Your task to perform on an android device: allow cookies in the chrome app Image 0: 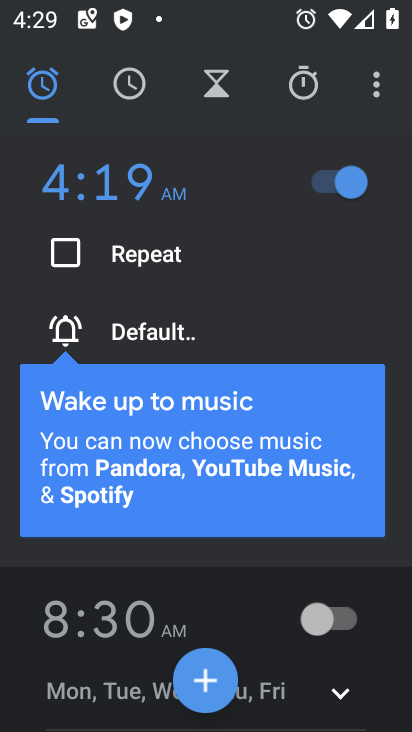
Step 0: press home button
Your task to perform on an android device: allow cookies in the chrome app Image 1: 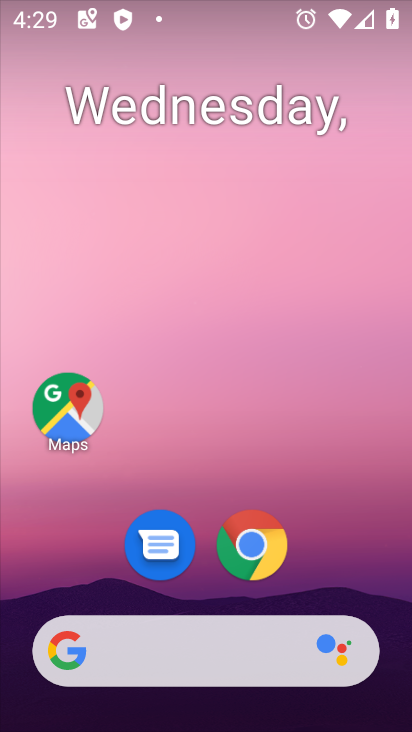
Step 1: drag from (362, 562) to (348, 118)
Your task to perform on an android device: allow cookies in the chrome app Image 2: 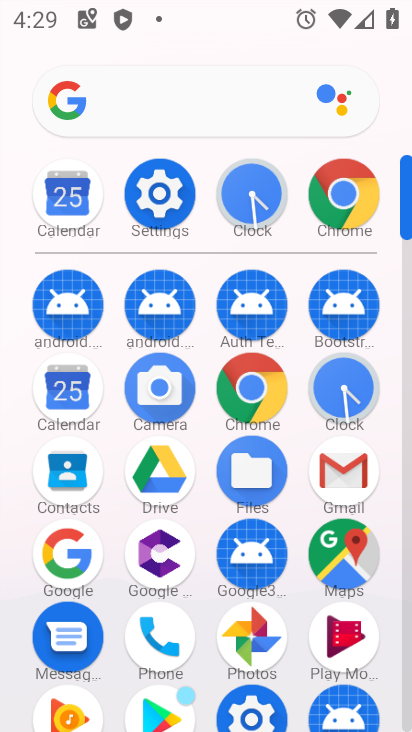
Step 2: click (267, 397)
Your task to perform on an android device: allow cookies in the chrome app Image 3: 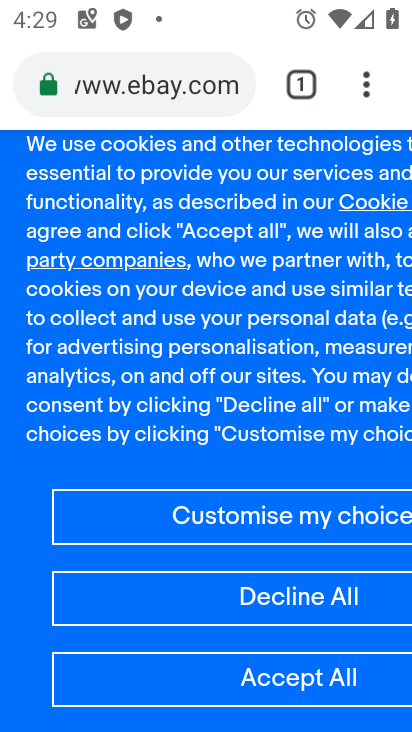
Step 3: click (363, 96)
Your task to perform on an android device: allow cookies in the chrome app Image 4: 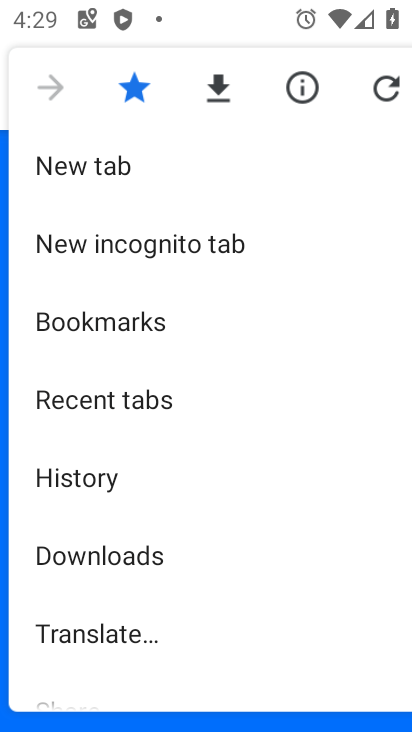
Step 4: drag from (302, 493) to (312, 375)
Your task to perform on an android device: allow cookies in the chrome app Image 5: 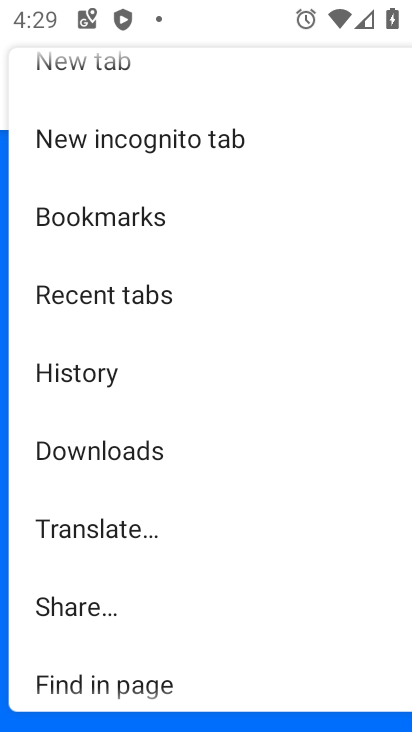
Step 5: drag from (288, 556) to (299, 412)
Your task to perform on an android device: allow cookies in the chrome app Image 6: 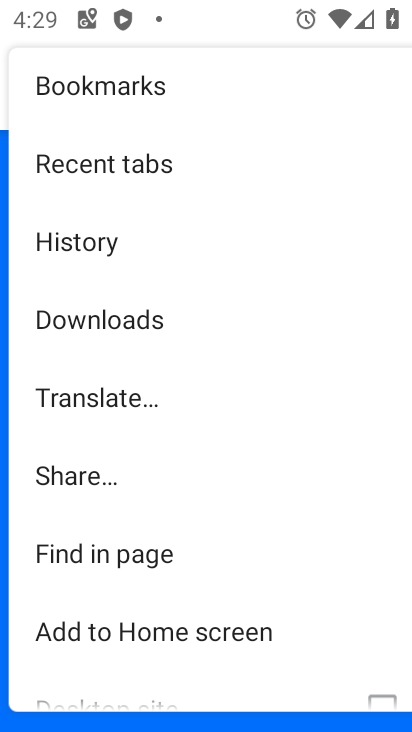
Step 6: drag from (268, 596) to (286, 447)
Your task to perform on an android device: allow cookies in the chrome app Image 7: 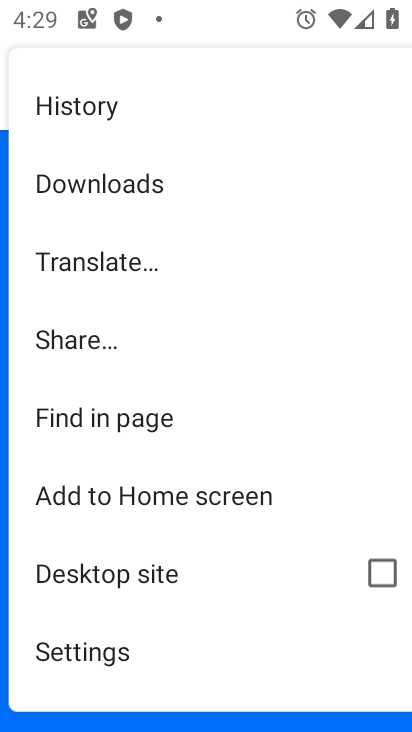
Step 7: drag from (251, 632) to (262, 525)
Your task to perform on an android device: allow cookies in the chrome app Image 8: 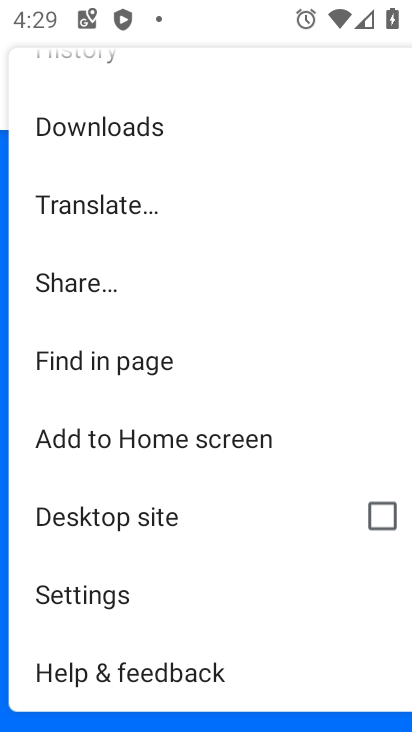
Step 8: click (227, 587)
Your task to perform on an android device: allow cookies in the chrome app Image 9: 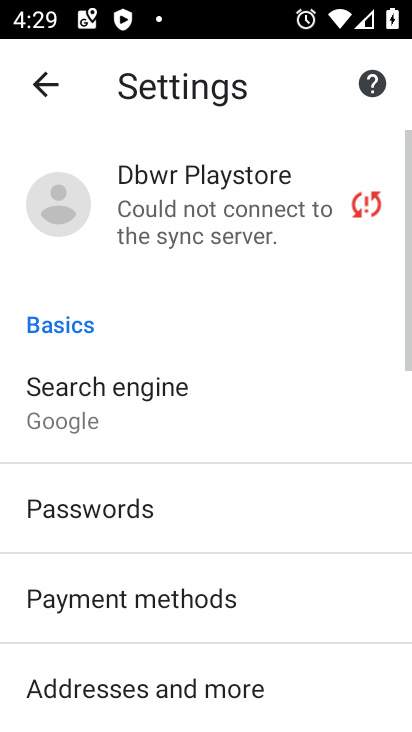
Step 9: drag from (227, 587) to (227, 492)
Your task to perform on an android device: allow cookies in the chrome app Image 10: 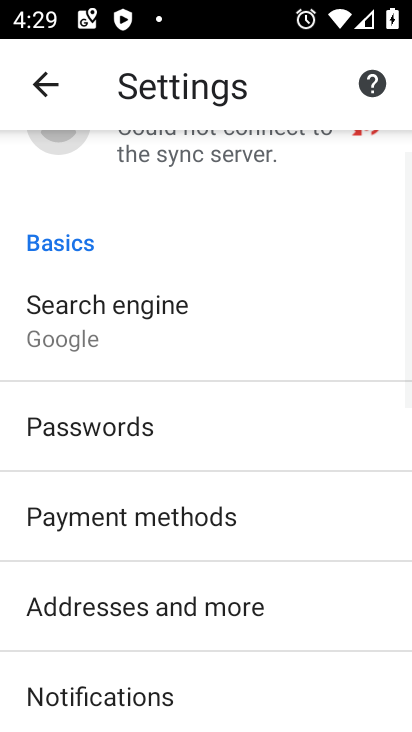
Step 10: drag from (293, 628) to (321, 486)
Your task to perform on an android device: allow cookies in the chrome app Image 11: 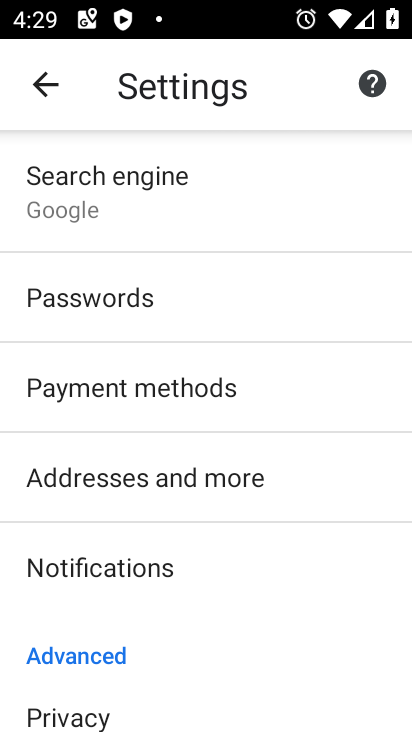
Step 11: drag from (333, 593) to (332, 476)
Your task to perform on an android device: allow cookies in the chrome app Image 12: 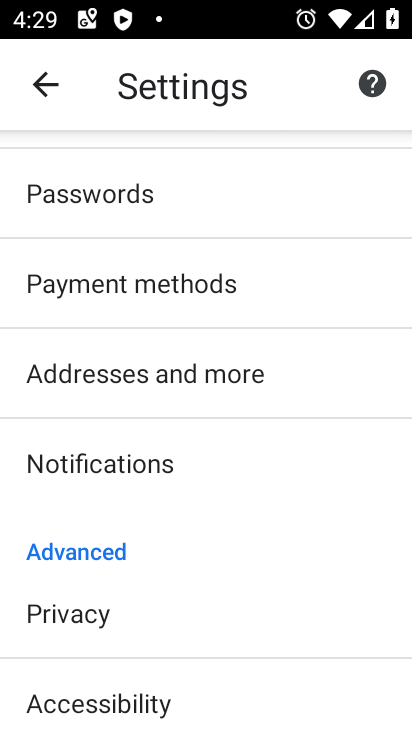
Step 12: drag from (314, 593) to (312, 460)
Your task to perform on an android device: allow cookies in the chrome app Image 13: 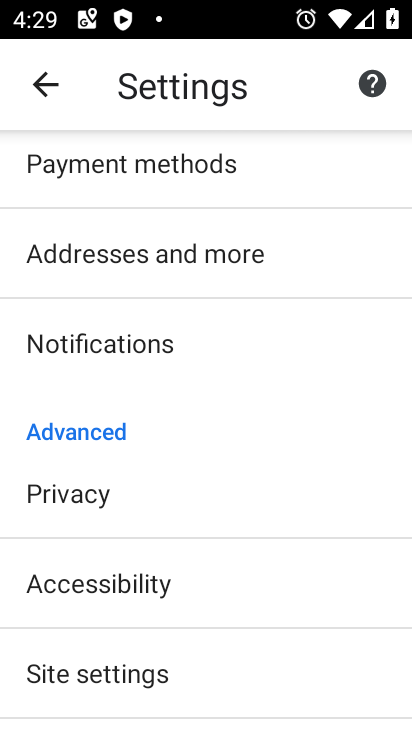
Step 13: drag from (300, 631) to (297, 501)
Your task to perform on an android device: allow cookies in the chrome app Image 14: 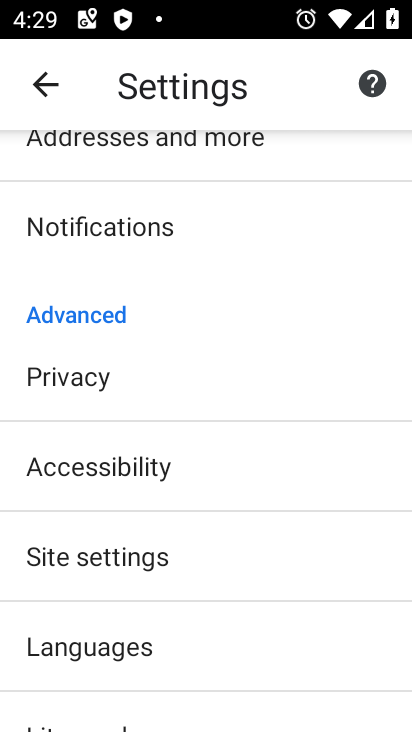
Step 14: click (287, 559)
Your task to perform on an android device: allow cookies in the chrome app Image 15: 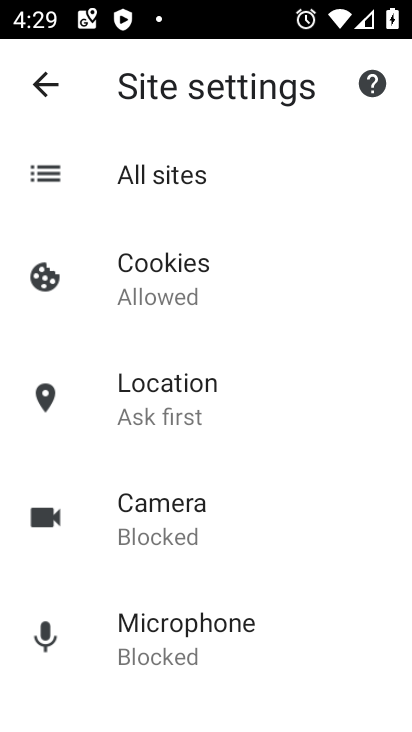
Step 15: click (281, 298)
Your task to perform on an android device: allow cookies in the chrome app Image 16: 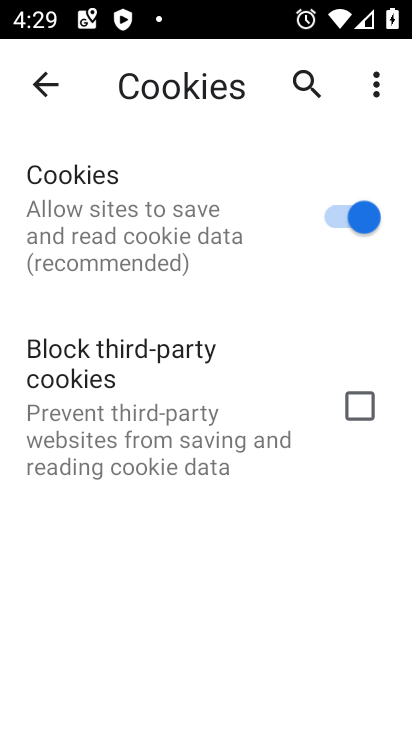
Step 16: task complete